Your task to perform on an android device: turn off smart reply in the gmail app Image 0: 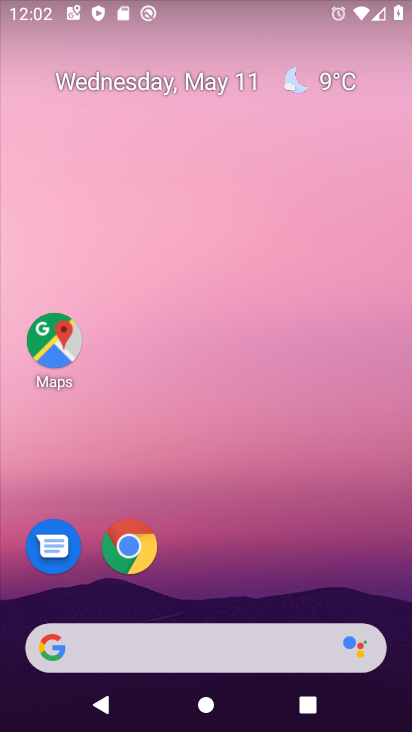
Step 0: drag from (278, 575) to (314, 200)
Your task to perform on an android device: turn off smart reply in the gmail app Image 1: 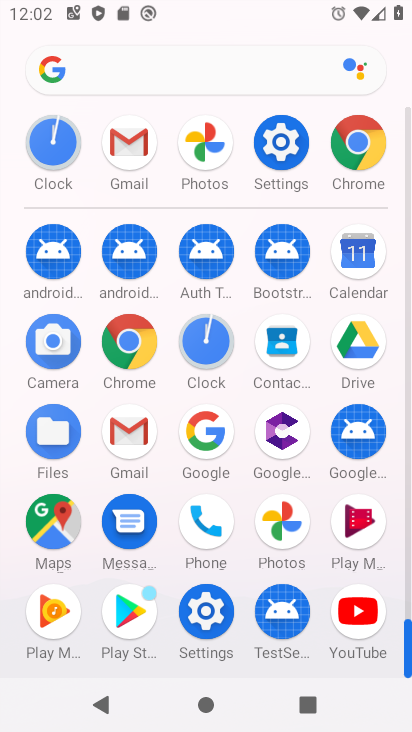
Step 1: click (139, 429)
Your task to perform on an android device: turn off smart reply in the gmail app Image 2: 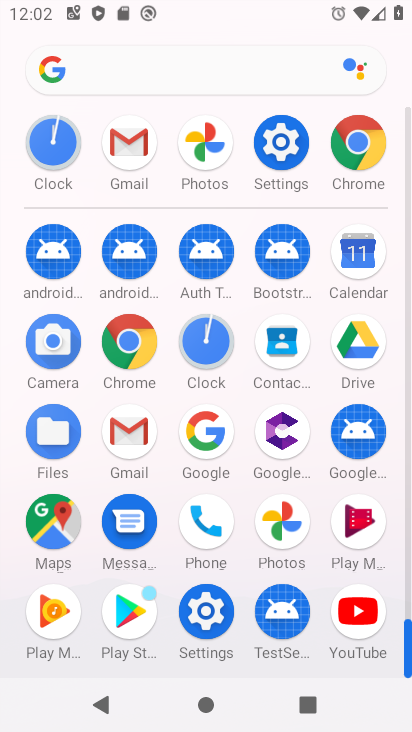
Step 2: click (139, 429)
Your task to perform on an android device: turn off smart reply in the gmail app Image 3: 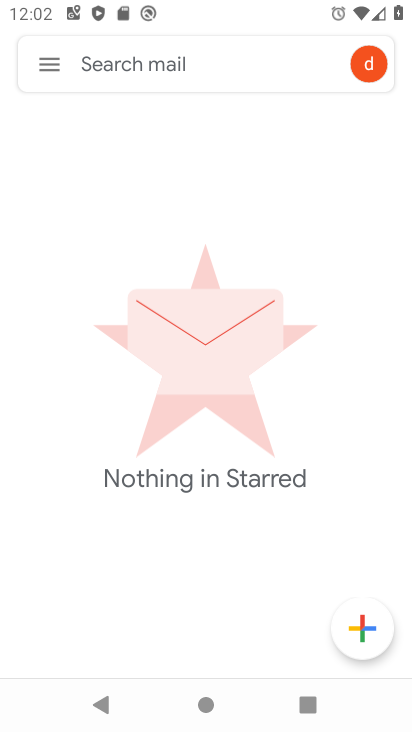
Step 3: drag from (252, 625) to (284, 263)
Your task to perform on an android device: turn off smart reply in the gmail app Image 4: 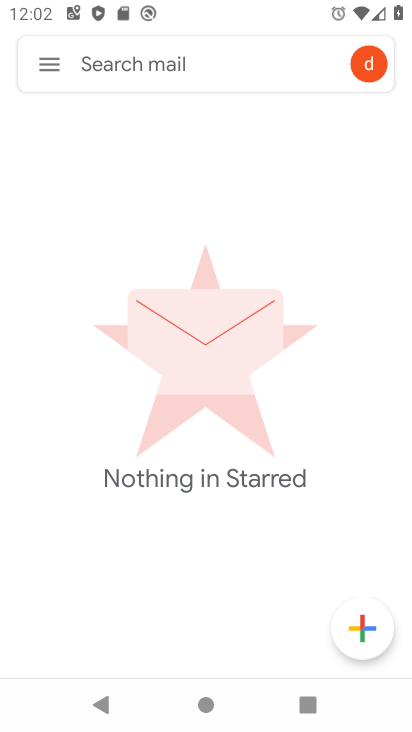
Step 4: click (61, 59)
Your task to perform on an android device: turn off smart reply in the gmail app Image 5: 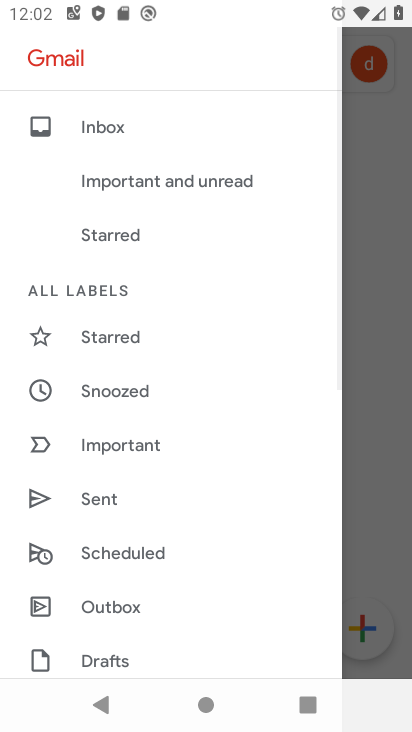
Step 5: drag from (120, 629) to (196, 148)
Your task to perform on an android device: turn off smart reply in the gmail app Image 6: 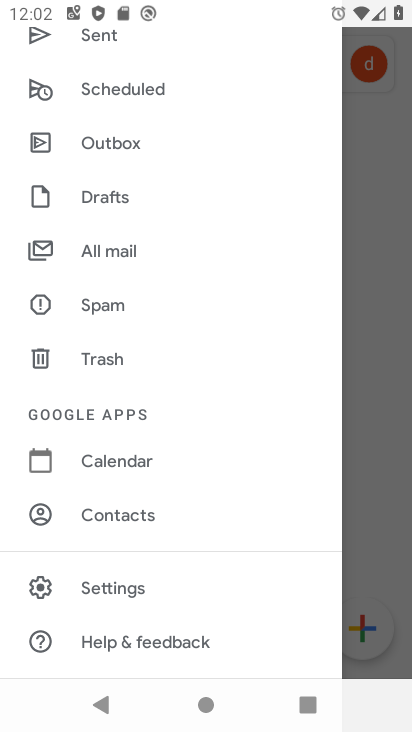
Step 6: click (153, 595)
Your task to perform on an android device: turn off smart reply in the gmail app Image 7: 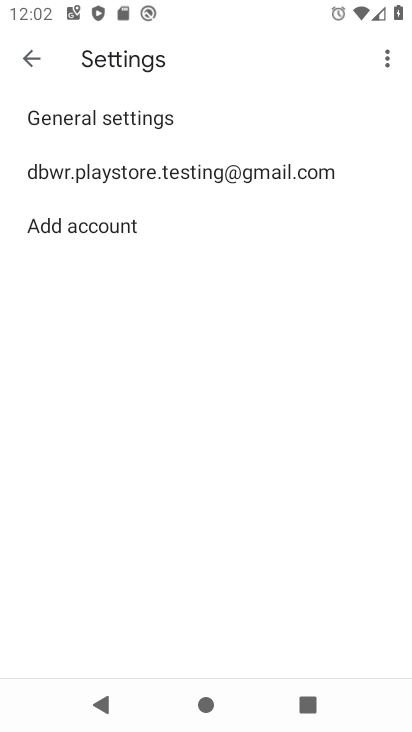
Step 7: drag from (152, 594) to (187, 137)
Your task to perform on an android device: turn off smart reply in the gmail app Image 8: 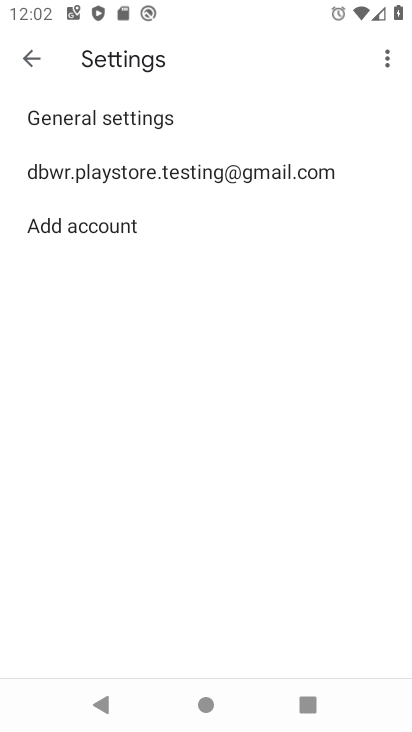
Step 8: click (168, 167)
Your task to perform on an android device: turn off smart reply in the gmail app Image 9: 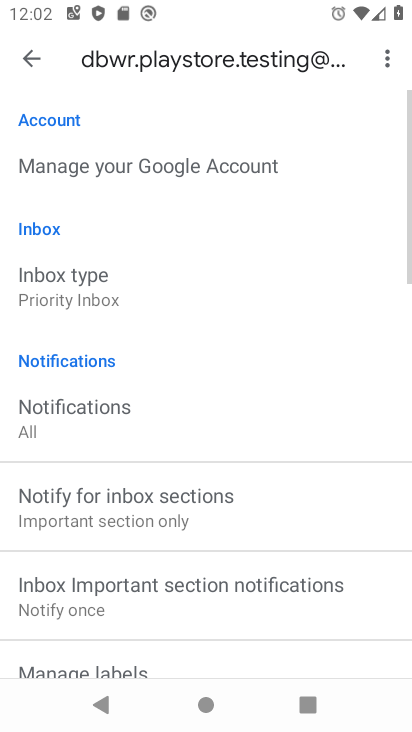
Step 9: drag from (190, 607) to (270, 91)
Your task to perform on an android device: turn off smart reply in the gmail app Image 10: 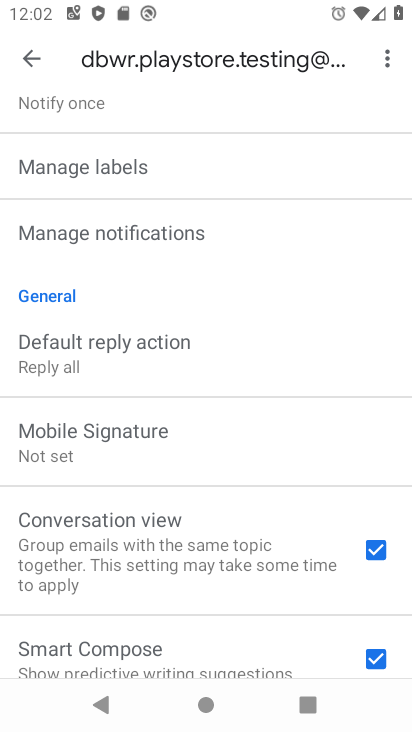
Step 10: drag from (240, 591) to (359, 210)
Your task to perform on an android device: turn off smart reply in the gmail app Image 11: 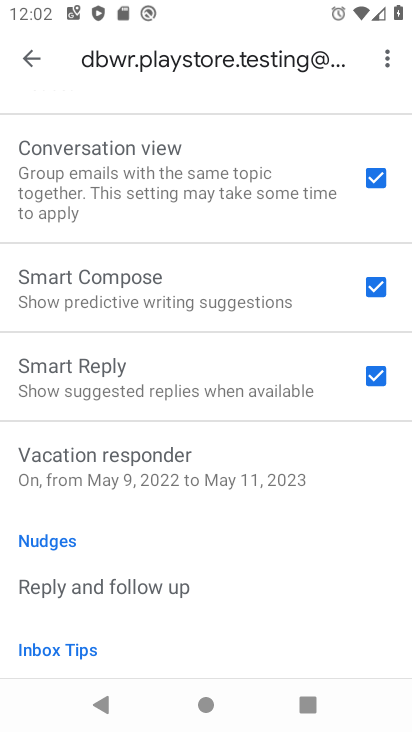
Step 11: click (364, 367)
Your task to perform on an android device: turn off smart reply in the gmail app Image 12: 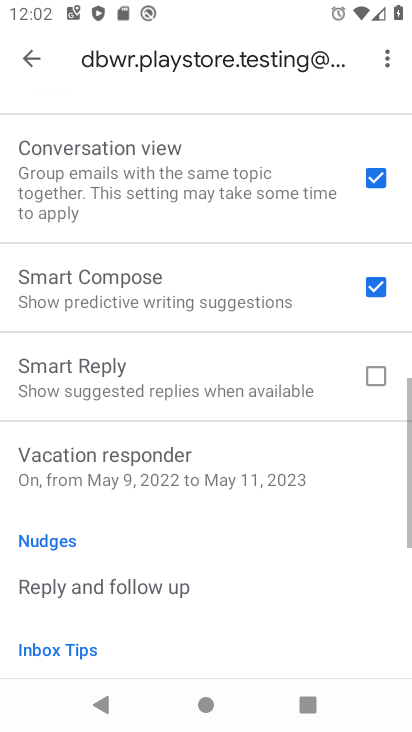
Step 12: task complete